Your task to perform on an android device: Go to Android settings Image 0: 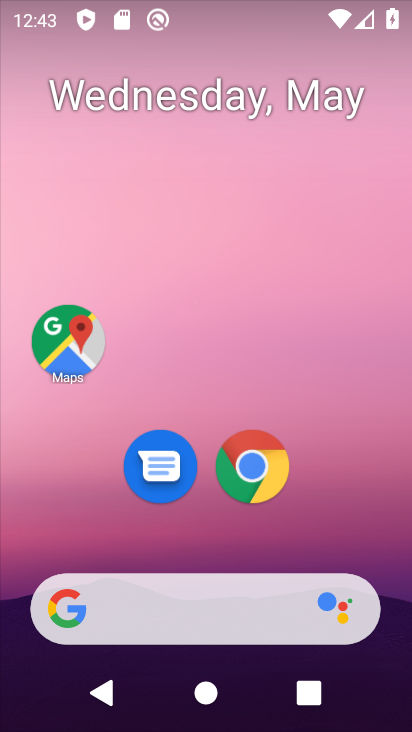
Step 0: drag from (205, 528) to (214, 96)
Your task to perform on an android device: Go to Android settings Image 1: 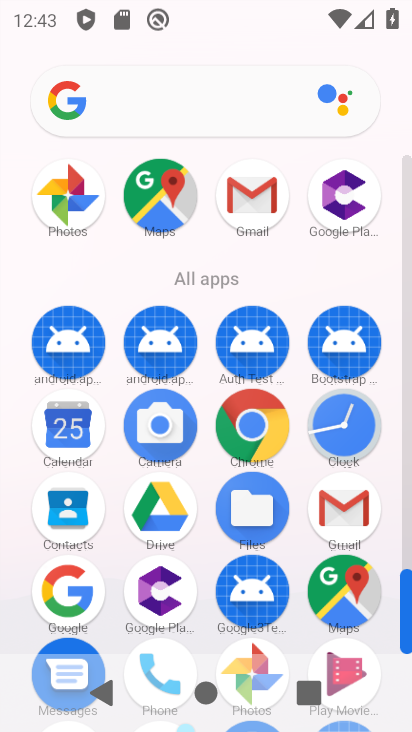
Step 1: drag from (195, 576) to (207, 91)
Your task to perform on an android device: Go to Android settings Image 2: 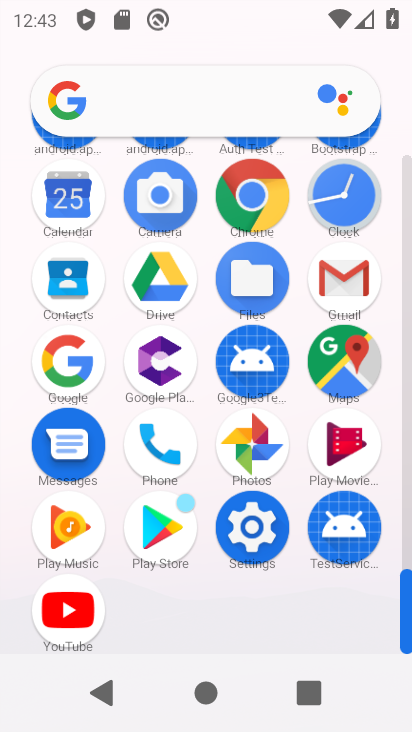
Step 2: click (252, 533)
Your task to perform on an android device: Go to Android settings Image 3: 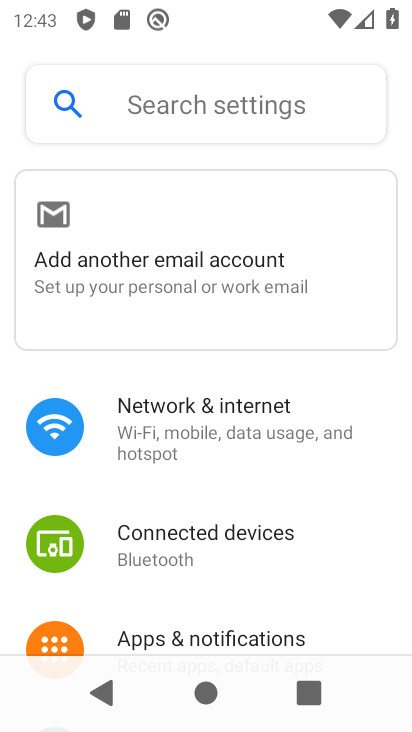
Step 3: task complete